Your task to perform on an android device: open app "DuckDuckGo Privacy Browser" (install if not already installed) and enter user name: "cleaving@outlook.com" and password: "freighters" Image 0: 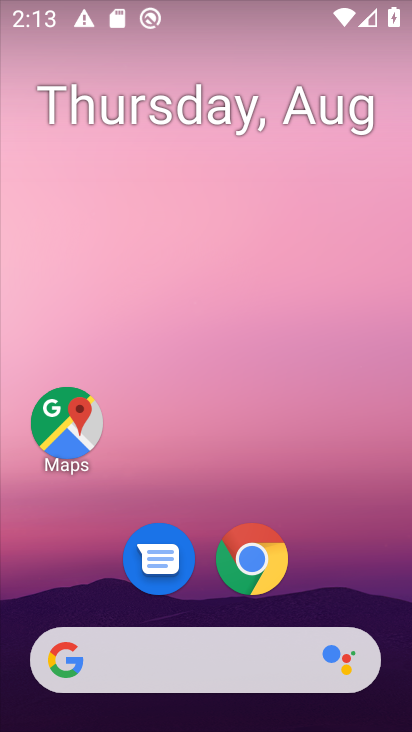
Step 0: drag from (103, 407) to (159, 113)
Your task to perform on an android device: open app "DuckDuckGo Privacy Browser" (install if not already installed) and enter user name: "cleaving@outlook.com" and password: "freighters" Image 1: 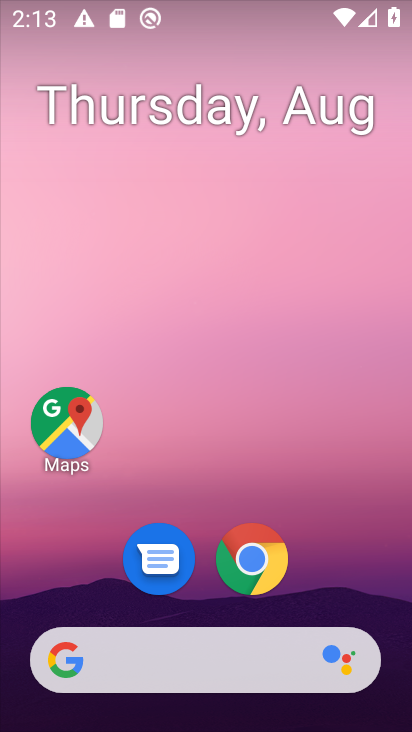
Step 1: drag from (81, 549) to (235, 9)
Your task to perform on an android device: open app "DuckDuckGo Privacy Browser" (install if not already installed) and enter user name: "cleaving@outlook.com" and password: "freighters" Image 2: 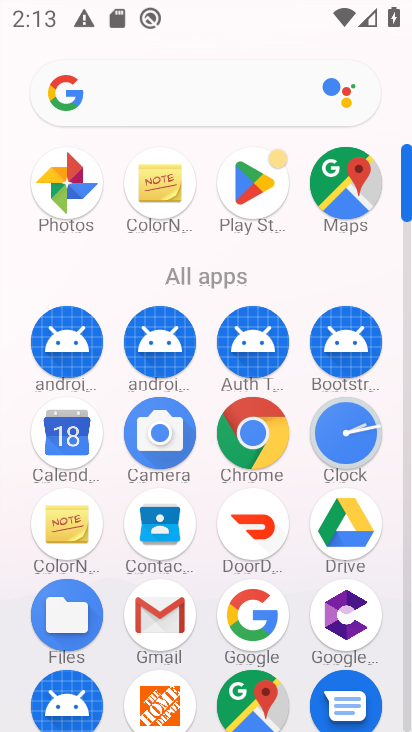
Step 2: click (241, 184)
Your task to perform on an android device: open app "DuckDuckGo Privacy Browser" (install if not already installed) and enter user name: "cleaving@outlook.com" and password: "freighters" Image 3: 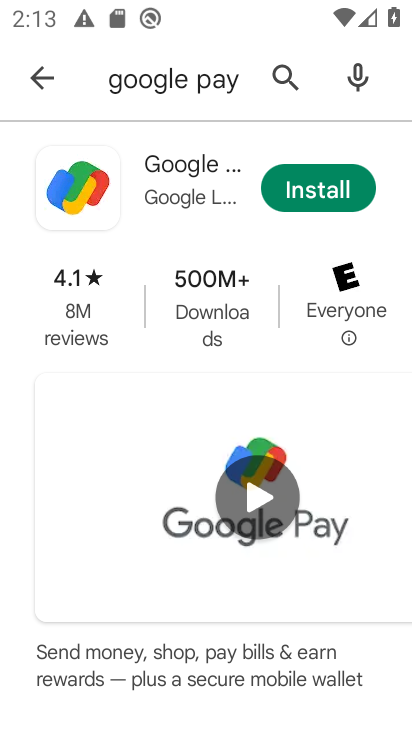
Step 3: click (275, 61)
Your task to perform on an android device: open app "DuckDuckGo Privacy Browser" (install if not already installed) and enter user name: "cleaving@outlook.com" and password: "freighters" Image 4: 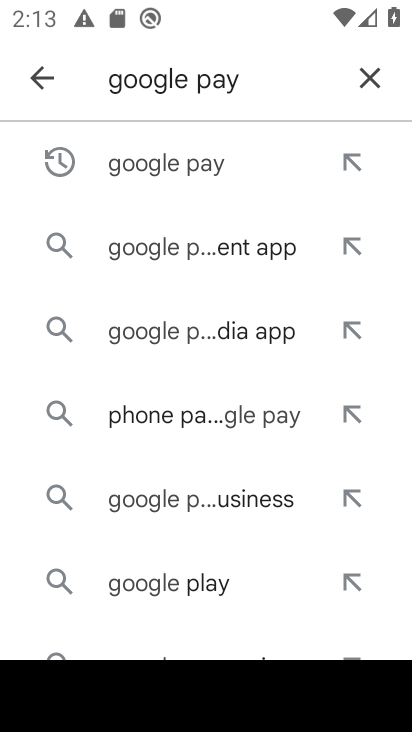
Step 4: click (369, 82)
Your task to perform on an android device: open app "DuckDuckGo Privacy Browser" (install if not already installed) and enter user name: "cleaving@outlook.com" and password: "freighters" Image 5: 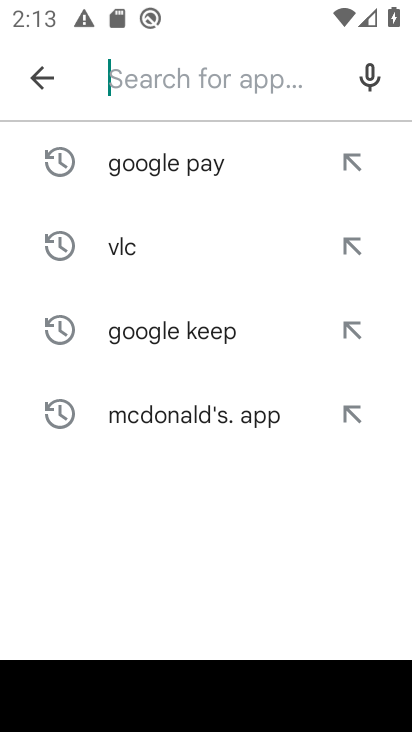
Step 5: type "duckduckgo"
Your task to perform on an android device: open app "DuckDuckGo Privacy Browser" (install if not already installed) and enter user name: "cleaving@outlook.com" and password: "freighters" Image 6: 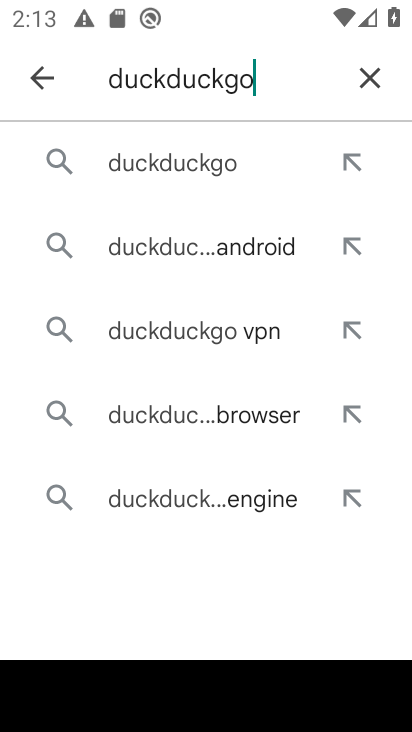
Step 6: click (156, 162)
Your task to perform on an android device: open app "DuckDuckGo Privacy Browser" (install if not already installed) and enter user name: "cleaving@outlook.com" and password: "freighters" Image 7: 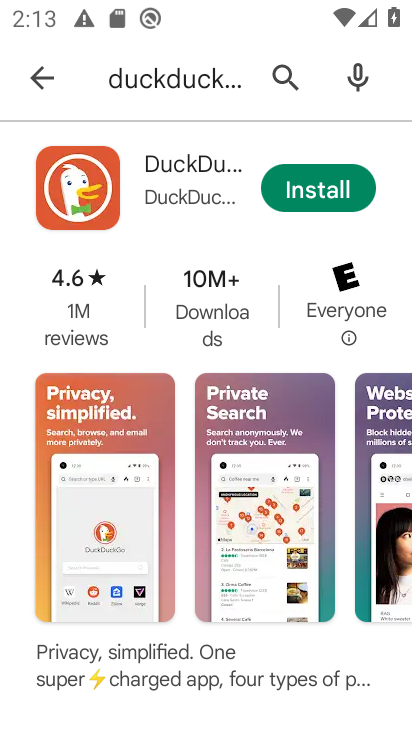
Step 7: click (325, 182)
Your task to perform on an android device: open app "DuckDuckGo Privacy Browser" (install if not already installed) and enter user name: "cleaving@outlook.com" and password: "freighters" Image 8: 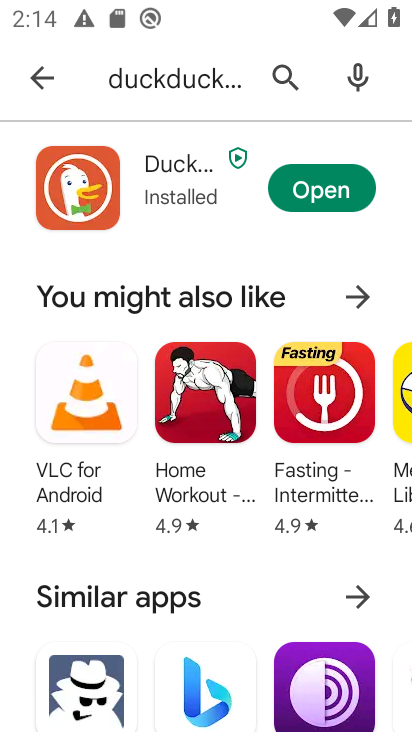
Step 8: click (296, 186)
Your task to perform on an android device: open app "DuckDuckGo Privacy Browser" (install if not already installed) and enter user name: "cleaving@outlook.com" and password: "freighters" Image 9: 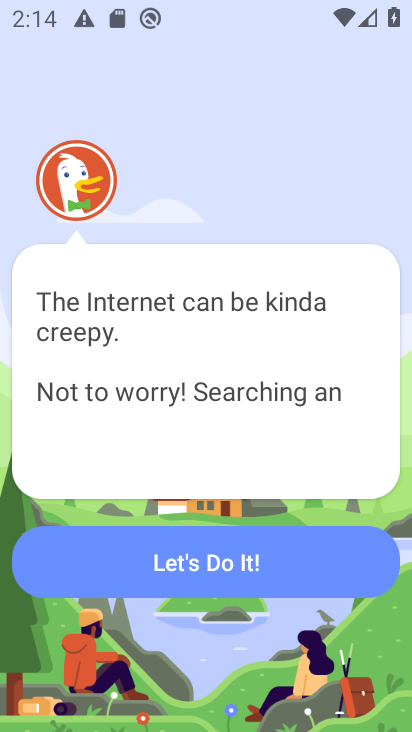
Step 9: click (233, 589)
Your task to perform on an android device: open app "DuckDuckGo Privacy Browser" (install if not already installed) and enter user name: "cleaving@outlook.com" and password: "freighters" Image 10: 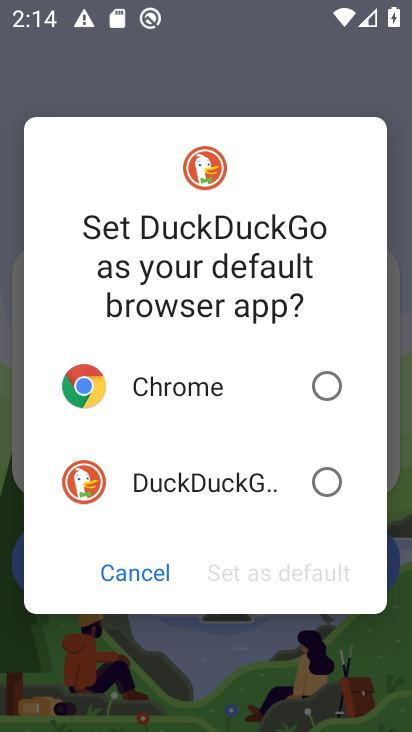
Step 10: click (310, 479)
Your task to perform on an android device: open app "DuckDuckGo Privacy Browser" (install if not already installed) and enter user name: "cleaving@outlook.com" and password: "freighters" Image 11: 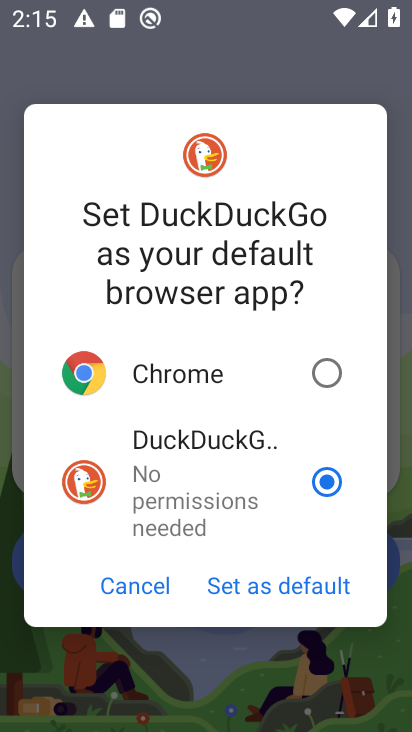
Step 11: click (125, 602)
Your task to perform on an android device: open app "DuckDuckGo Privacy Browser" (install if not already installed) and enter user name: "cleaving@outlook.com" and password: "freighters" Image 12: 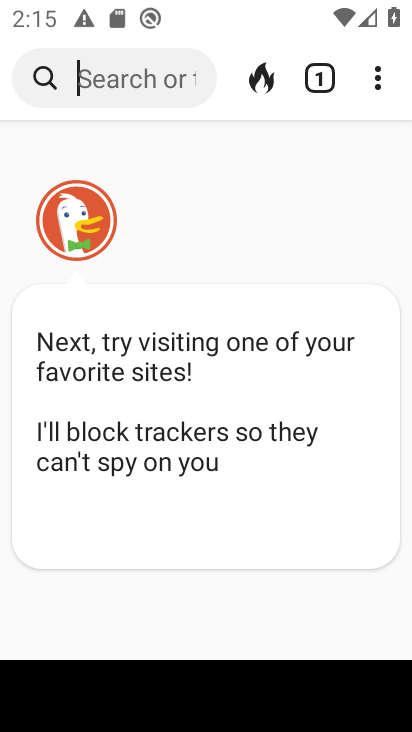
Step 12: task complete